Your task to perform on an android device: set the stopwatch Image 0: 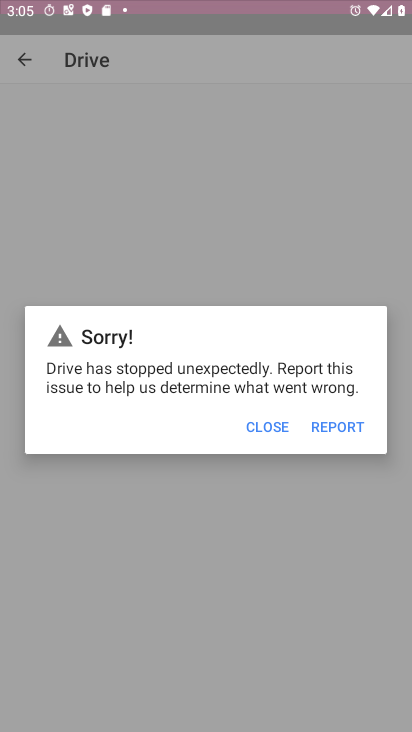
Step 0: press home button
Your task to perform on an android device: set the stopwatch Image 1: 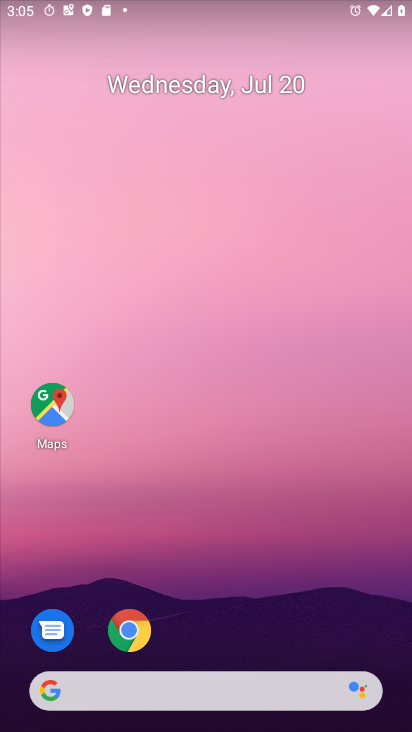
Step 1: drag from (164, 682) to (282, 123)
Your task to perform on an android device: set the stopwatch Image 2: 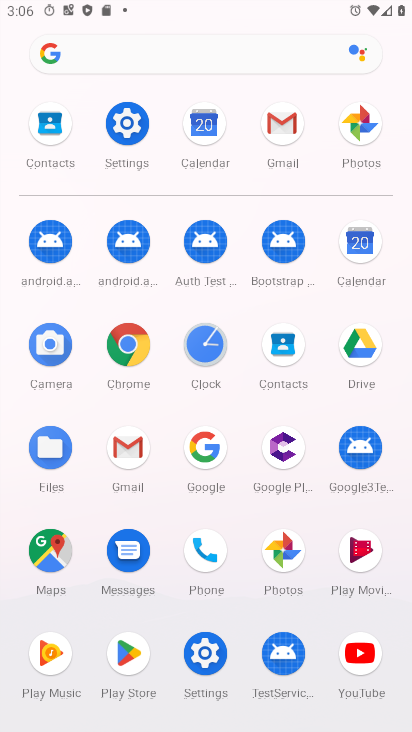
Step 2: click (204, 340)
Your task to perform on an android device: set the stopwatch Image 3: 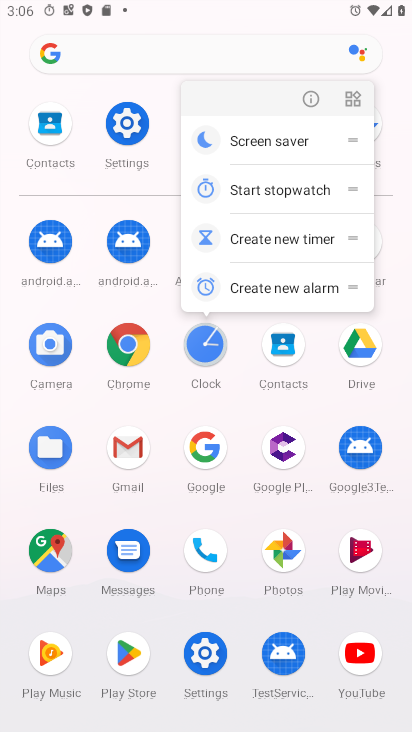
Step 3: click (204, 340)
Your task to perform on an android device: set the stopwatch Image 4: 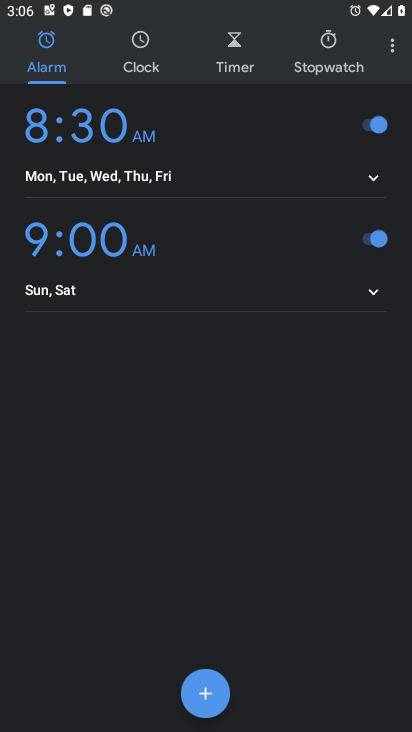
Step 4: click (304, 55)
Your task to perform on an android device: set the stopwatch Image 5: 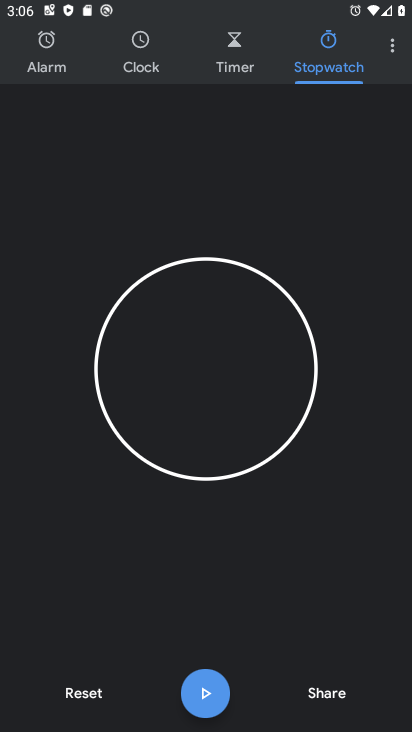
Step 5: click (93, 694)
Your task to perform on an android device: set the stopwatch Image 6: 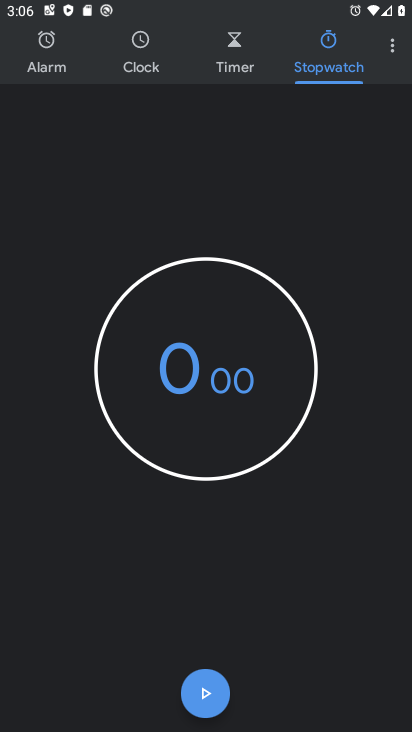
Step 6: click (205, 376)
Your task to perform on an android device: set the stopwatch Image 7: 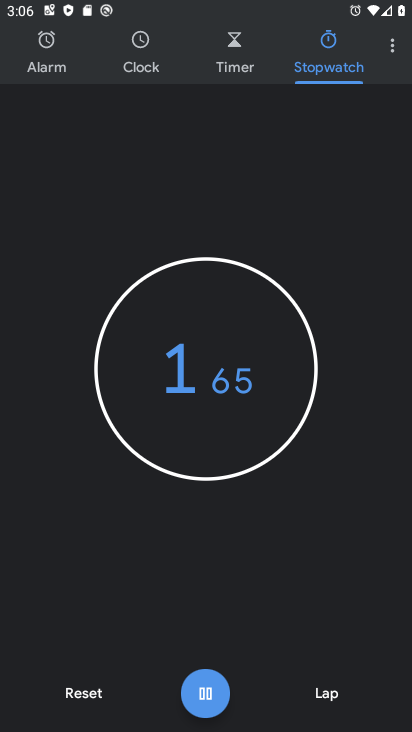
Step 7: click (212, 372)
Your task to perform on an android device: set the stopwatch Image 8: 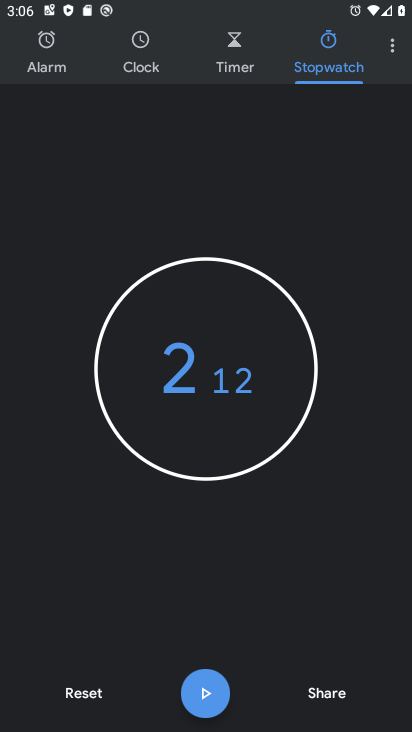
Step 8: task complete